Your task to perform on an android device: check the backup settings in the google photos Image 0: 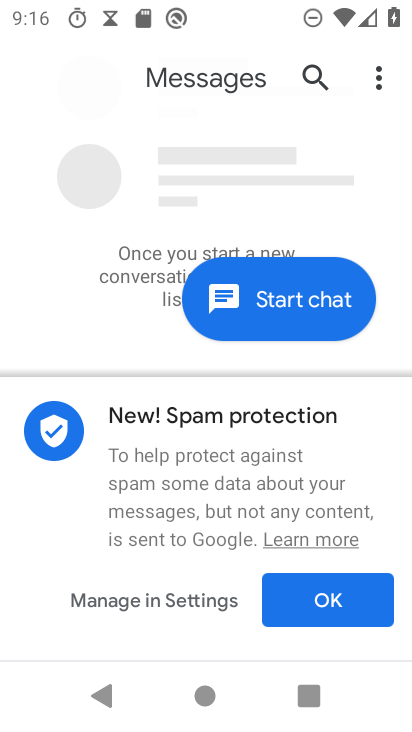
Step 0: press home button
Your task to perform on an android device: check the backup settings in the google photos Image 1: 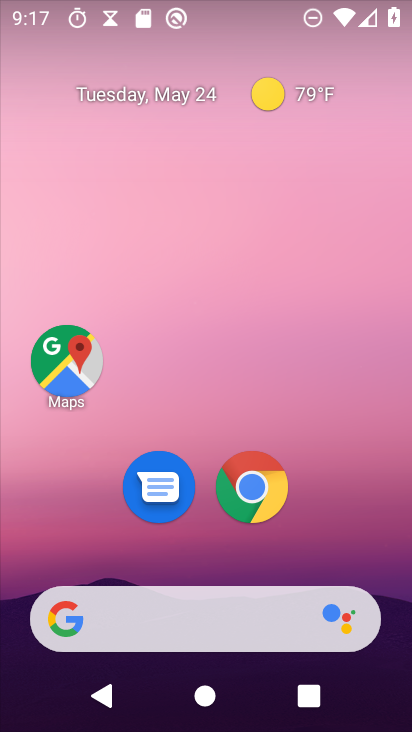
Step 1: drag from (21, 507) to (197, 158)
Your task to perform on an android device: check the backup settings in the google photos Image 2: 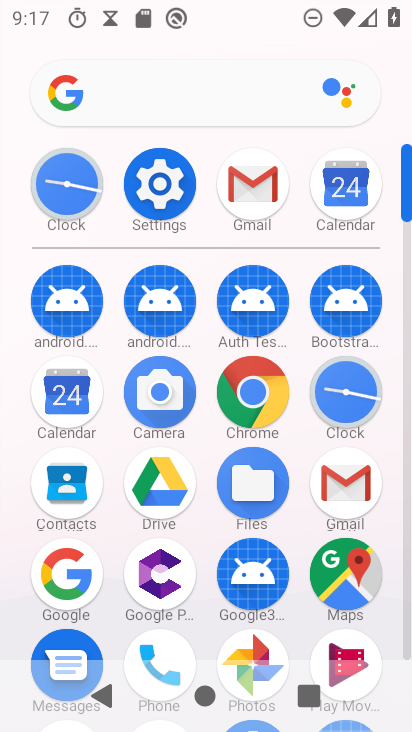
Step 2: click (264, 653)
Your task to perform on an android device: check the backup settings in the google photos Image 3: 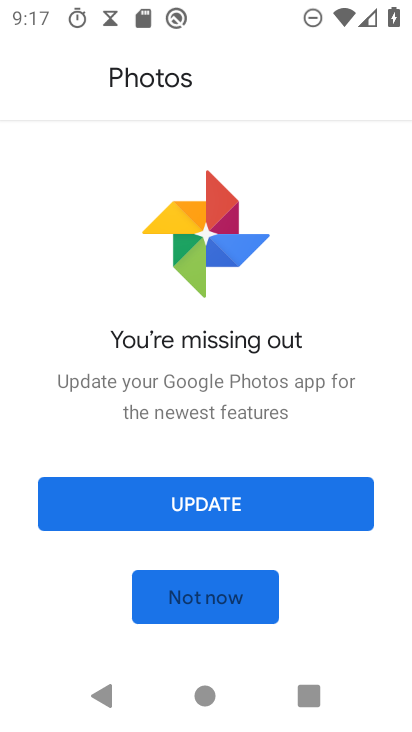
Step 3: click (197, 600)
Your task to perform on an android device: check the backup settings in the google photos Image 4: 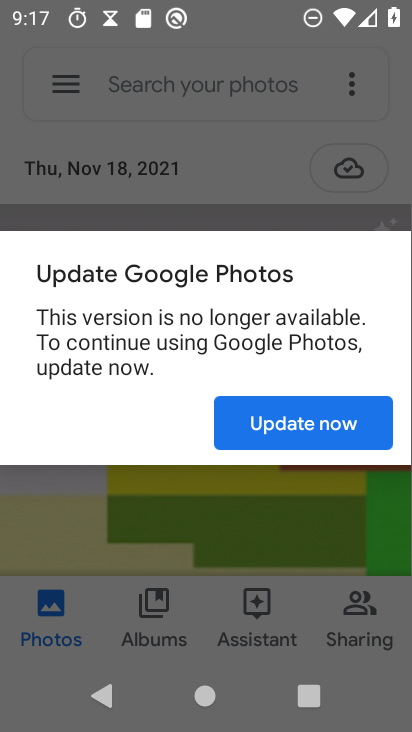
Step 4: click (350, 427)
Your task to perform on an android device: check the backup settings in the google photos Image 5: 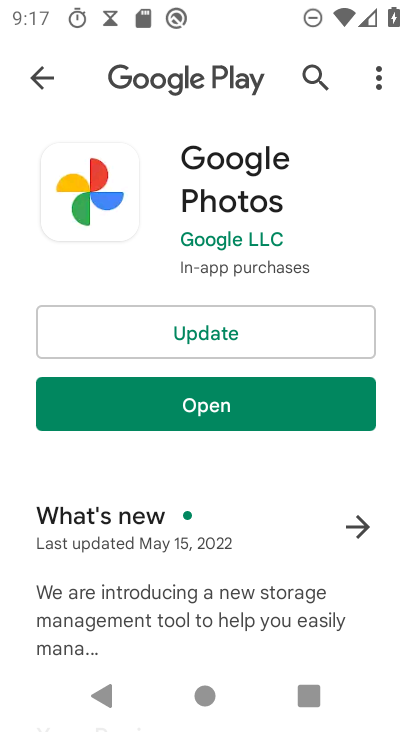
Step 5: press home button
Your task to perform on an android device: check the backup settings in the google photos Image 6: 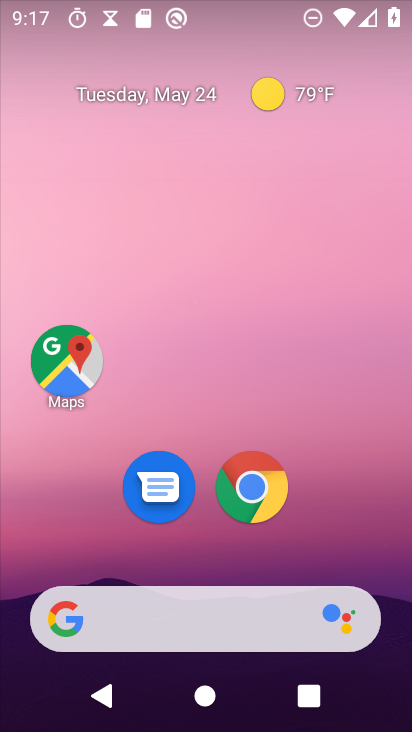
Step 6: drag from (27, 652) to (263, 117)
Your task to perform on an android device: check the backup settings in the google photos Image 7: 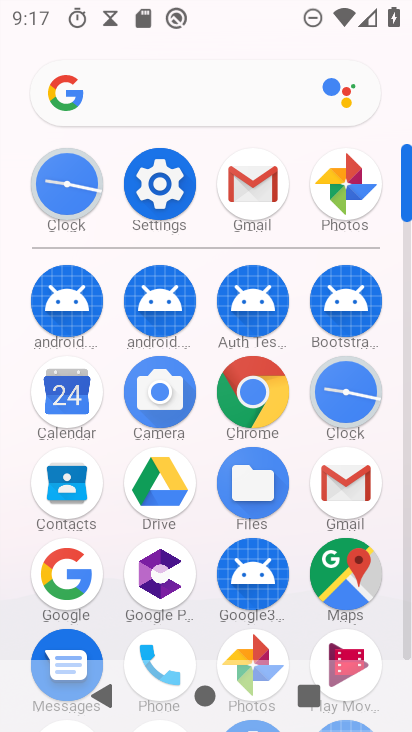
Step 7: click (248, 645)
Your task to perform on an android device: check the backup settings in the google photos Image 8: 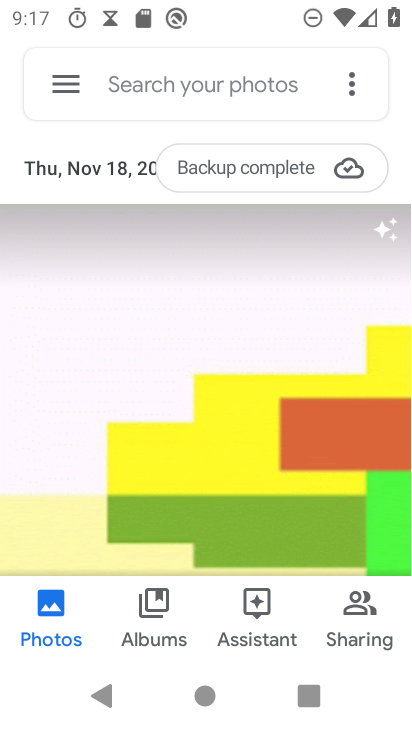
Step 8: click (56, 76)
Your task to perform on an android device: check the backup settings in the google photos Image 9: 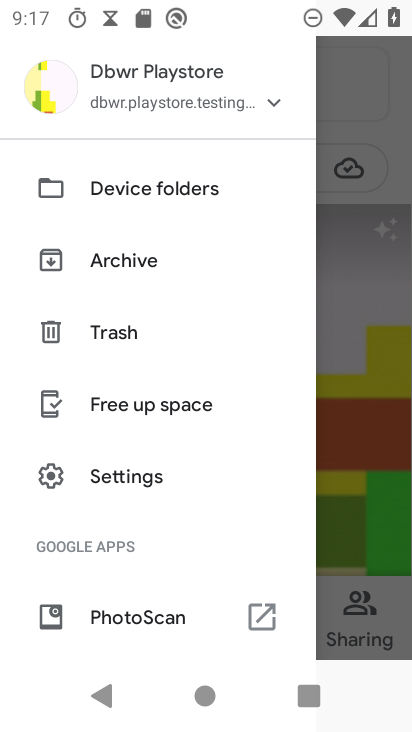
Step 9: click (97, 467)
Your task to perform on an android device: check the backup settings in the google photos Image 10: 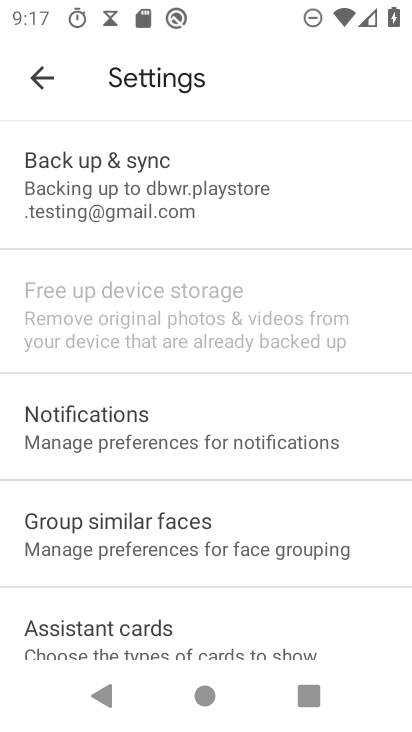
Step 10: click (144, 156)
Your task to perform on an android device: check the backup settings in the google photos Image 11: 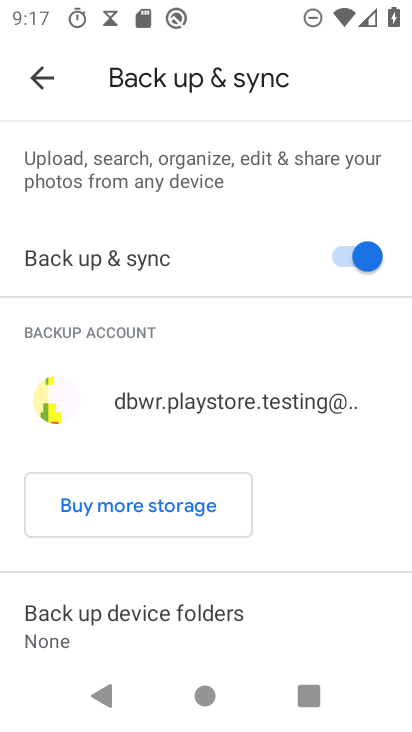
Step 11: task complete